Your task to perform on an android device: Go to Maps Image 0: 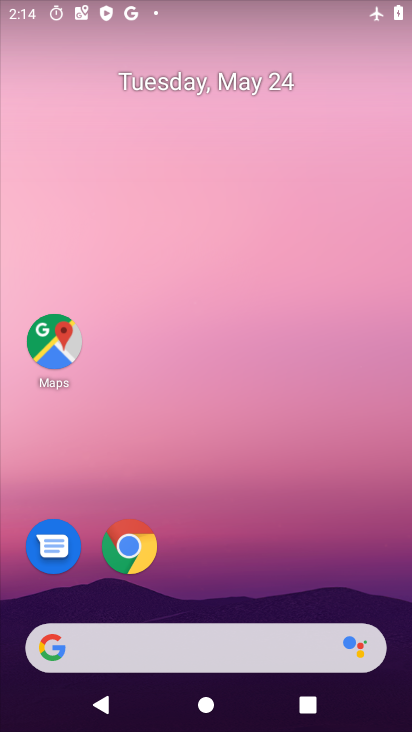
Step 0: click (36, 371)
Your task to perform on an android device: Go to Maps Image 1: 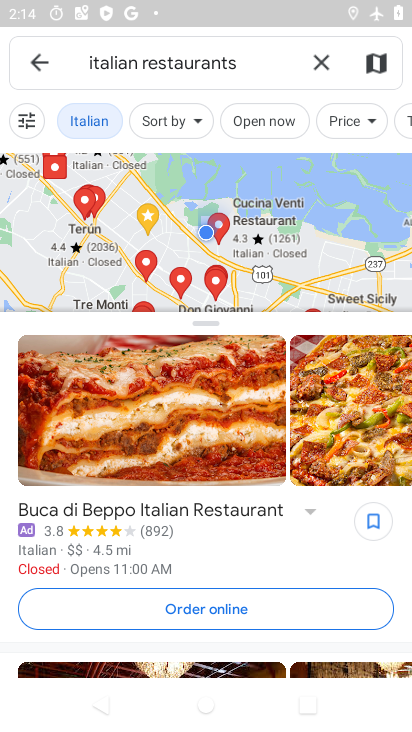
Step 1: task complete